Your task to perform on an android device: Do I have any events today? Image 0: 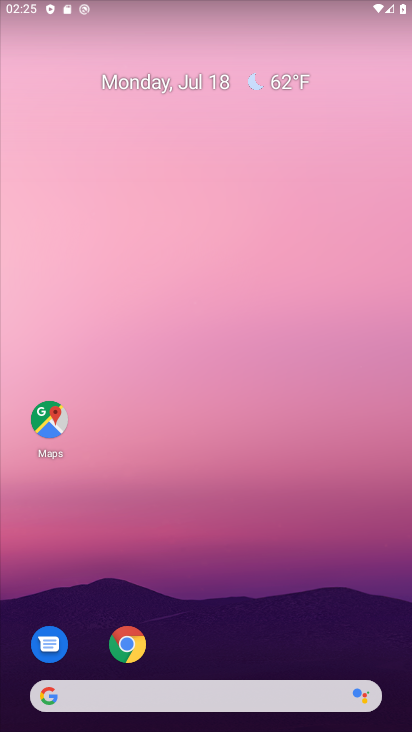
Step 0: drag from (171, 647) to (187, 126)
Your task to perform on an android device: Do I have any events today? Image 1: 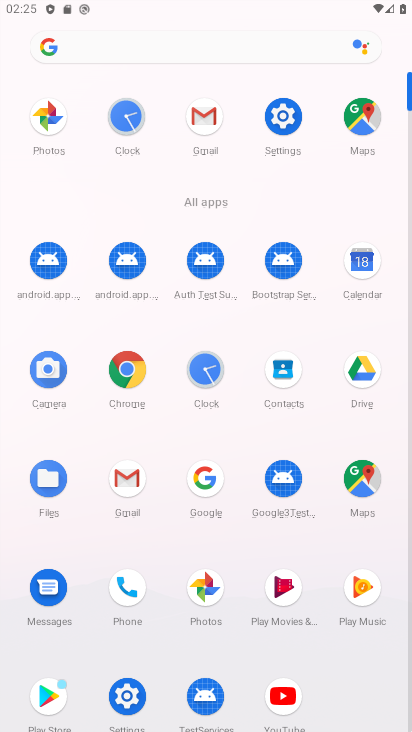
Step 1: click (356, 258)
Your task to perform on an android device: Do I have any events today? Image 2: 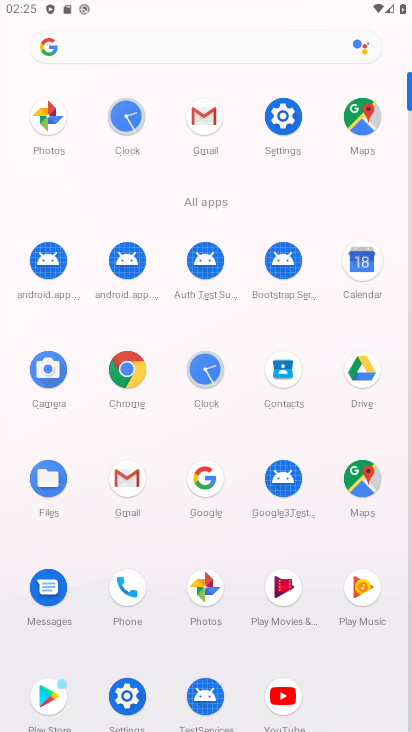
Step 2: click (362, 266)
Your task to perform on an android device: Do I have any events today? Image 3: 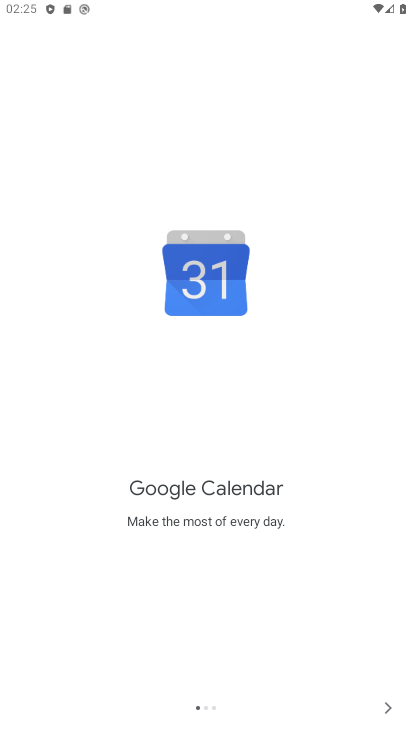
Step 3: click (384, 711)
Your task to perform on an android device: Do I have any events today? Image 4: 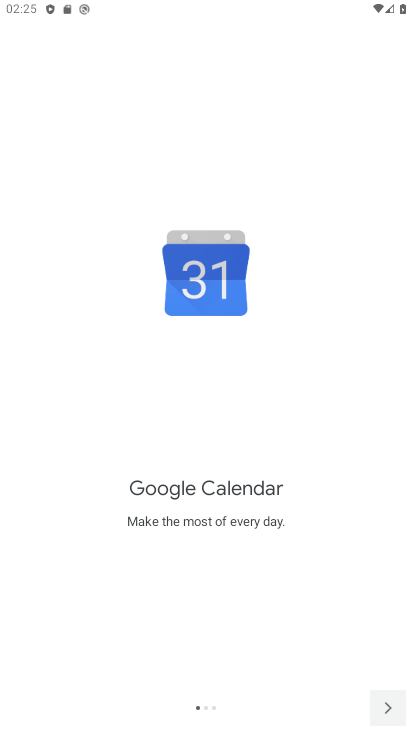
Step 4: click (384, 711)
Your task to perform on an android device: Do I have any events today? Image 5: 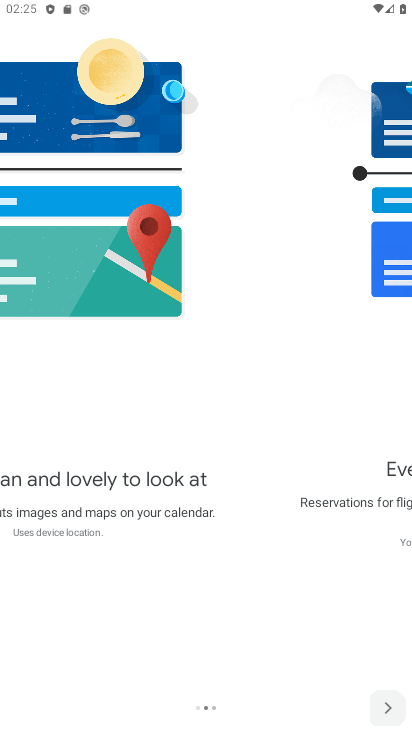
Step 5: click (384, 711)
Your task to perform on an android device: Do I have any events today? Image 6: 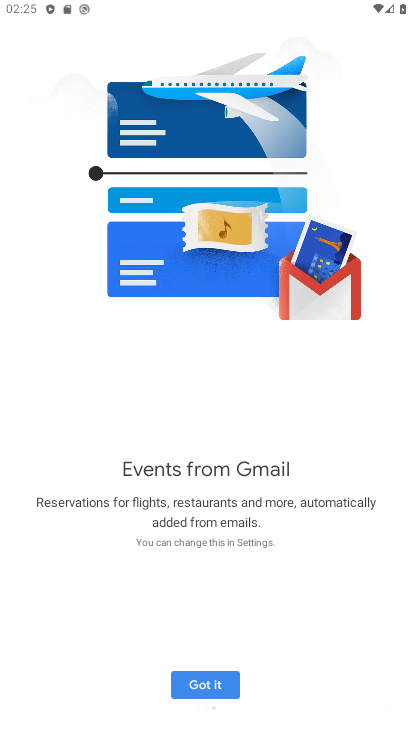
Step 6: click (384, 711)
Your task to perform on an android device: Do I have any events today? Image 7: 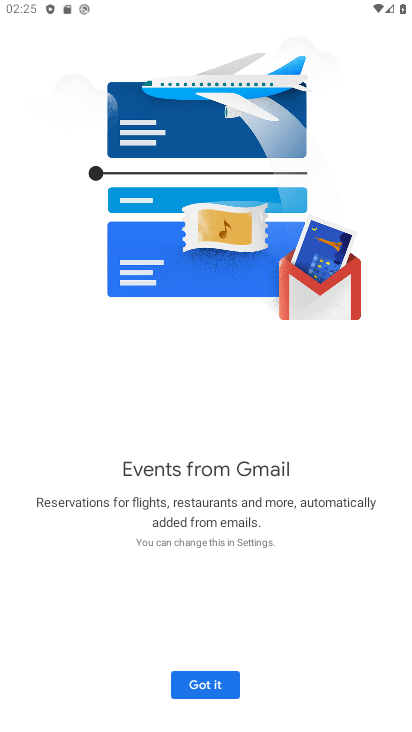
Step 7: click (384, 711)
Your task to perform on an android device: Do I have any events today? Image 8: 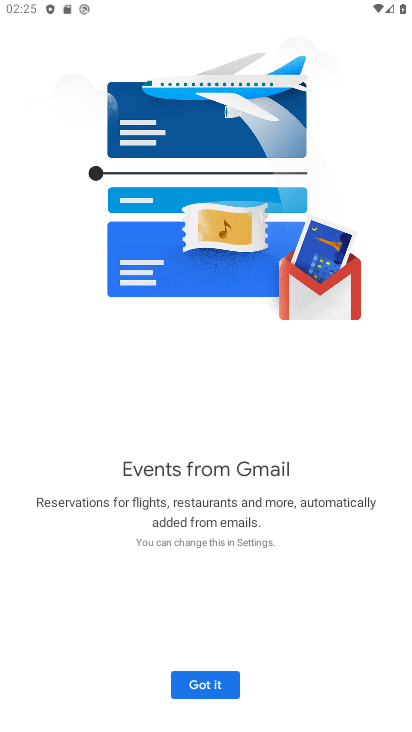
Step 8: click (384, 711)
Your task to perform on an android device: Do I have any events today? Image 9: 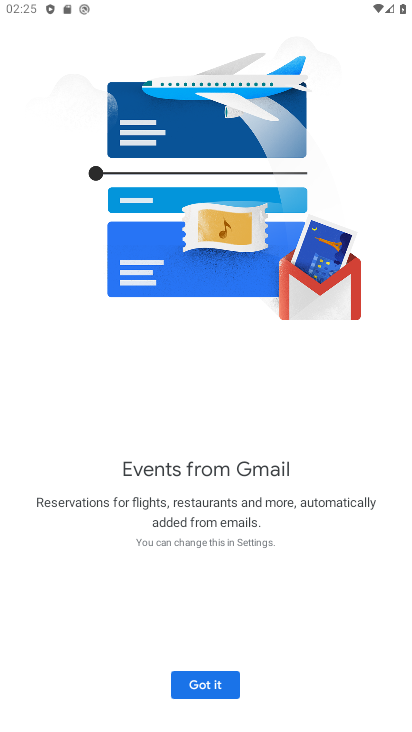
Step 9: click (384, 711)
Your task to perform on an android device: Do I have any events today? Image 10: 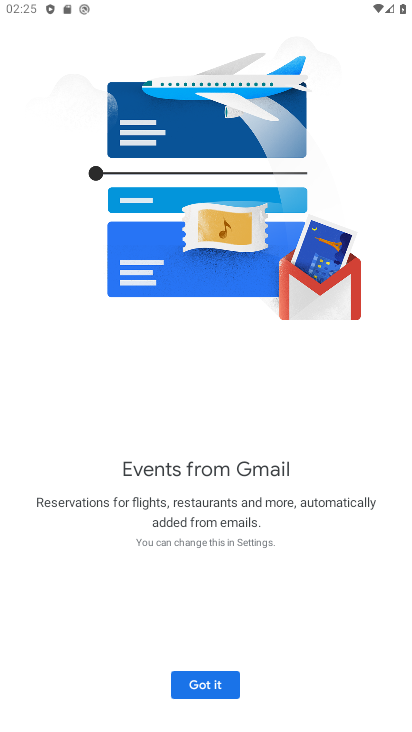
Step 10: click (198, 681)
Your task to perform on an android device: Do I have any events today? Image 11: 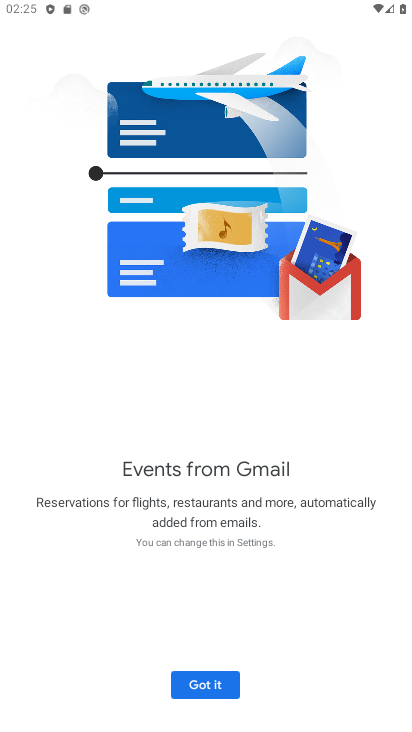
Step 11: click (198, 681)
Your task to perform on an android device: Do I have any events today? Image 12: 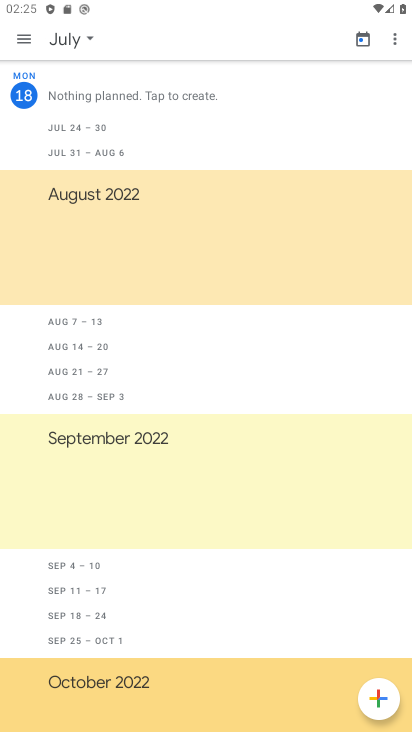
Step 12: click (92, 39)
Your task to perform on an android device: Do I have any events today? Image 13: 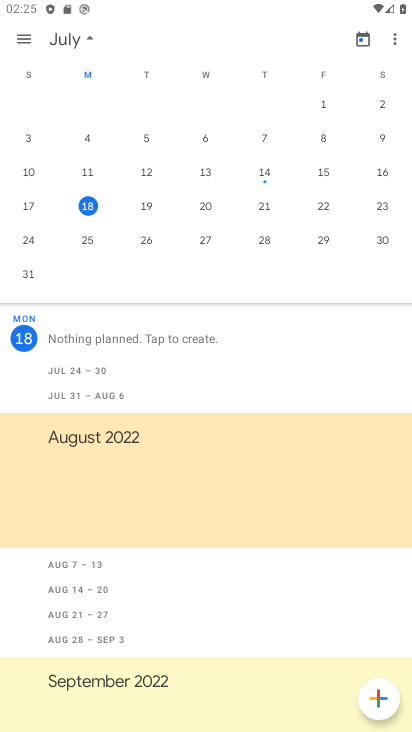
Step 13: drag from (251, 204) to (17, 124)
Your task to perform on an android device: Do I have any events today? Image 14: 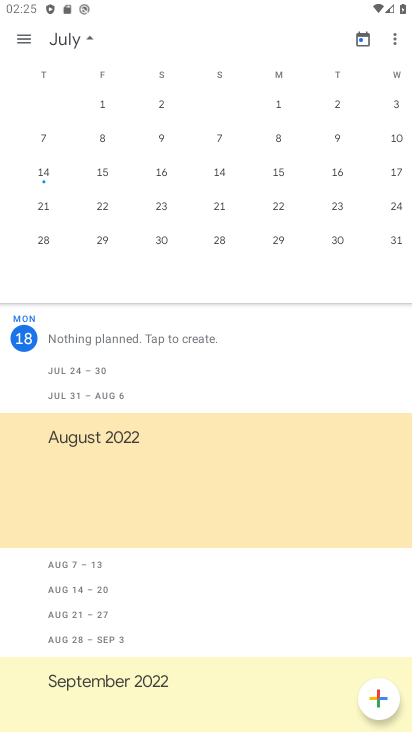
Step 14: drag from (257, 166) to (0, 200)
Your task to perform on an android device: Do I have any events today? Image 15: 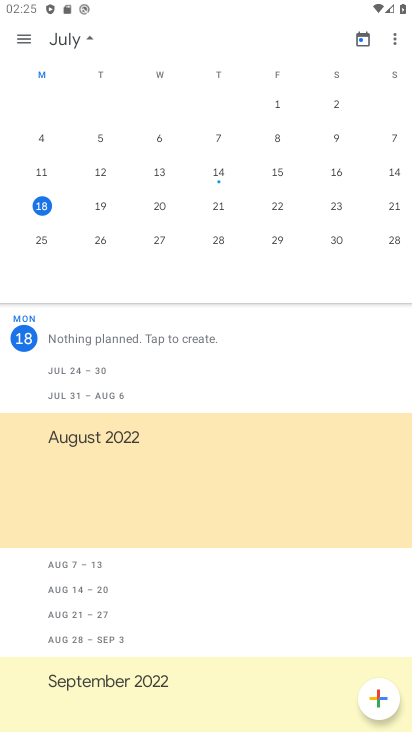
Step 15: drag from (292, 200) to (219, 205)
Your task to perform on an android device: Do I have any events today? Image 16: 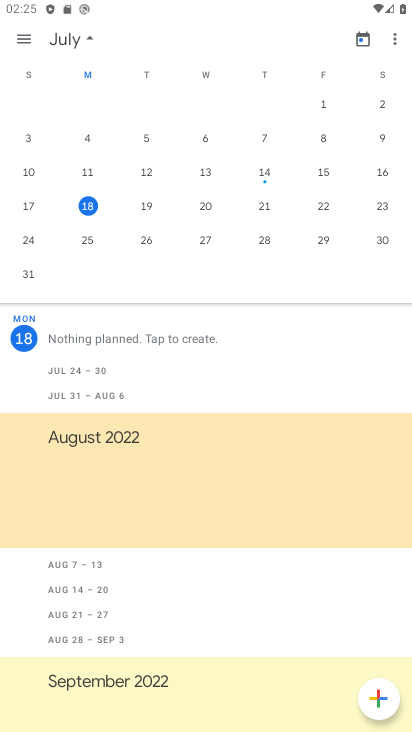
Step 16: drag from (173, 162) to (23, 169)
Your task to perform on an android device: Do I have any events today? Image 17: 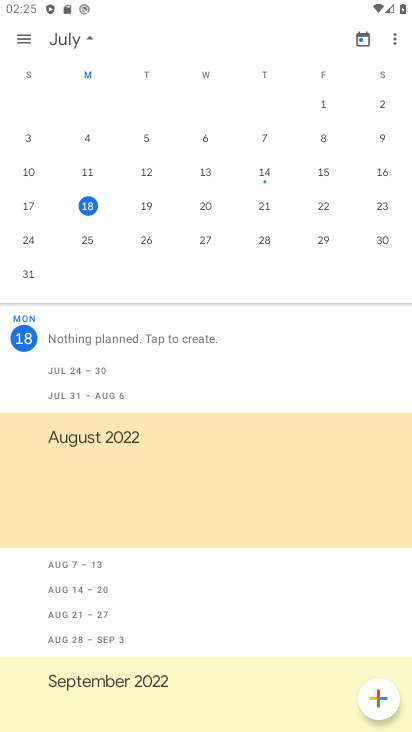
Step 17: drag from (142, 185) to (2, 207)
Your task to perform on an android device: Do I have any events today? Image 18: 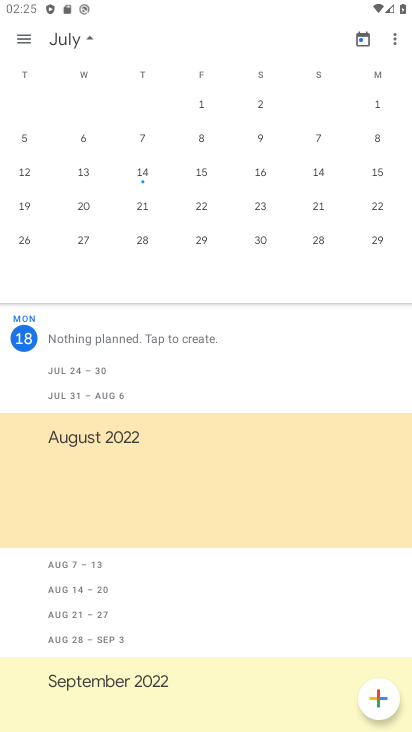
Step 18: drag from (300, 212) to (95, 196)
Your task to perform on an android device: Do I have any events today? Image 19: 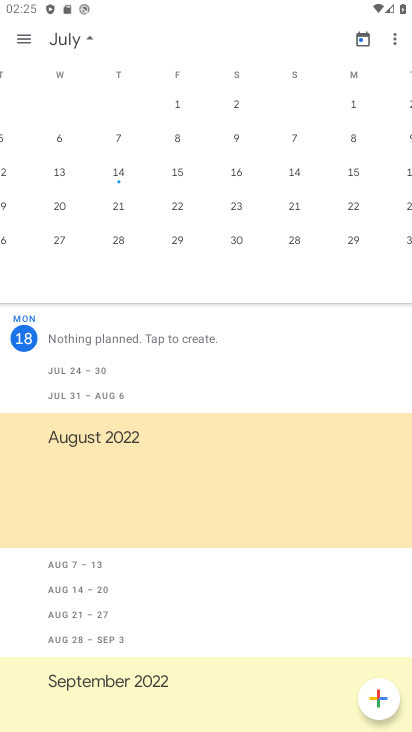
Step 19: drag from (239, 193) to (50, 189)
Your task to perform on an android device: Do I have any events today? Image 20: 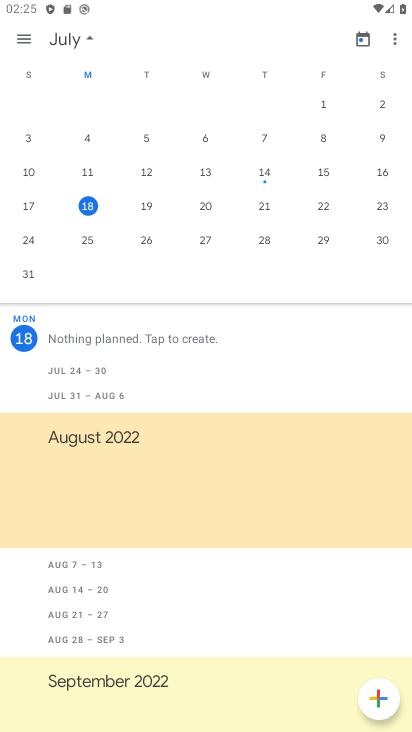
Step 20: drag from (198, 237) to (6, 232)
Your task to perform on an android device: Do I have any events today? Image 21: 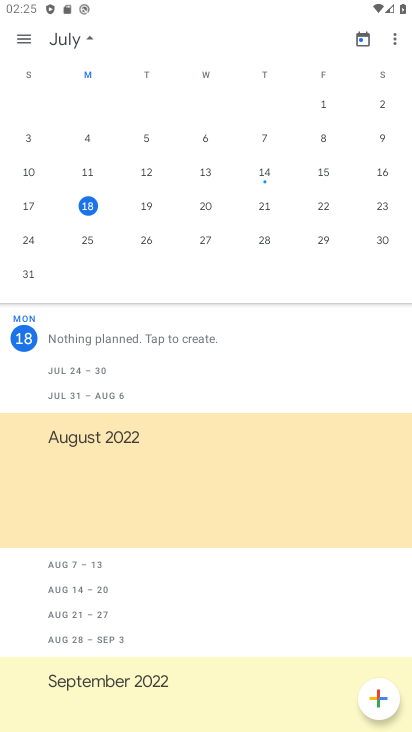
Step 21: click (141, 213)
Your task to perform on an android device: Do I have any events today? Image 22: 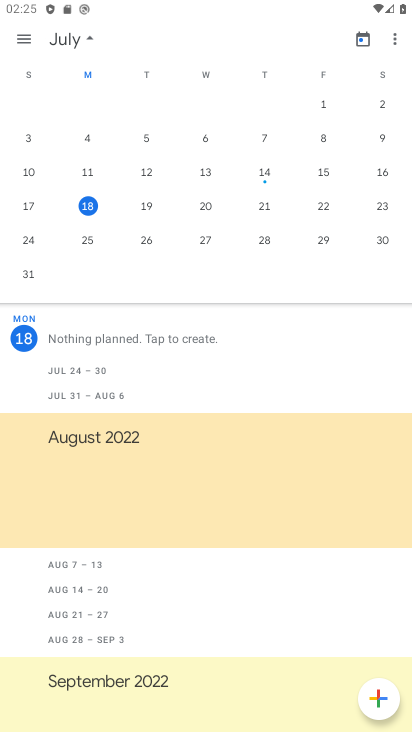
Step 22: task complete